Your task to perform on an android device: Open Yahoo.com Image 0: 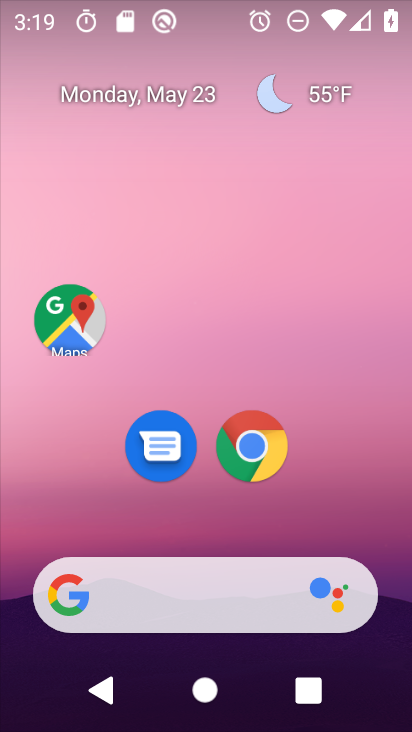
Step 0: click (237, 435)
Your task to perform on an android device: Open Yahoo.com Image 1: 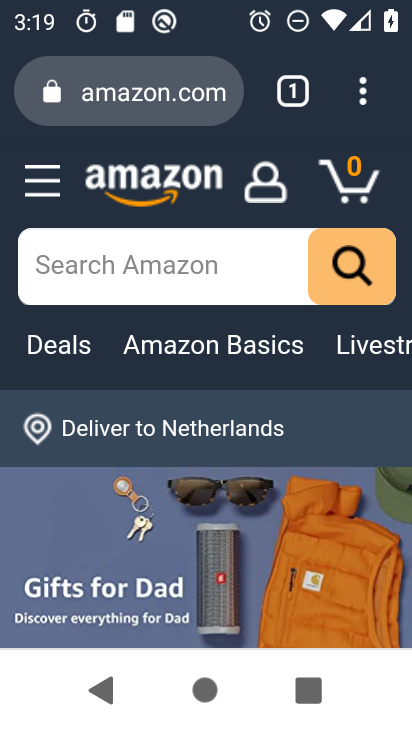
Step 1: click (296, 98)
Your task to perform on an android device: Open Yahoo.com Image 2: 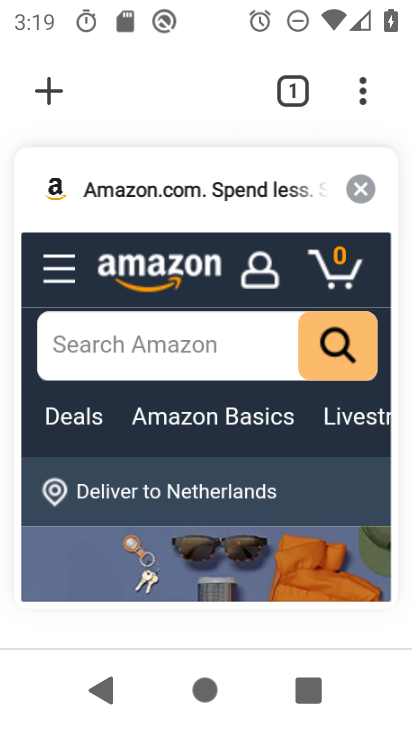
Step 2: click (52, 76)
Your task to perform on an android device: Open Yahoo.com Image 3: 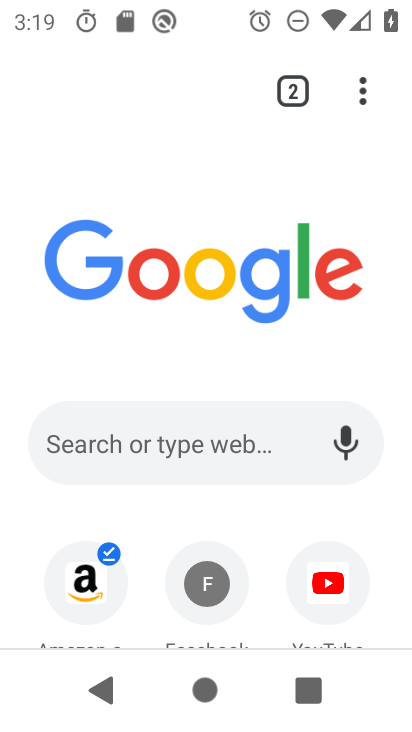
Step 3: drag from (235, 511) to (181, 213)
Your task to perform on an android device: Open Yahoo.com Image 4: 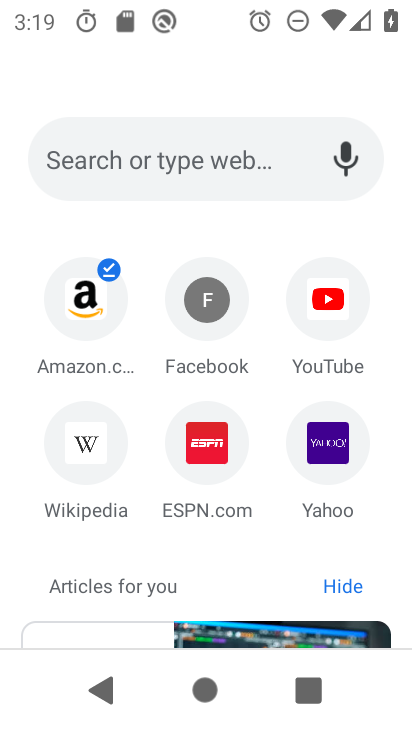
Step 4: click (323, 441)
Your task to perform on an android device: Open Yahoo.com Image 5: 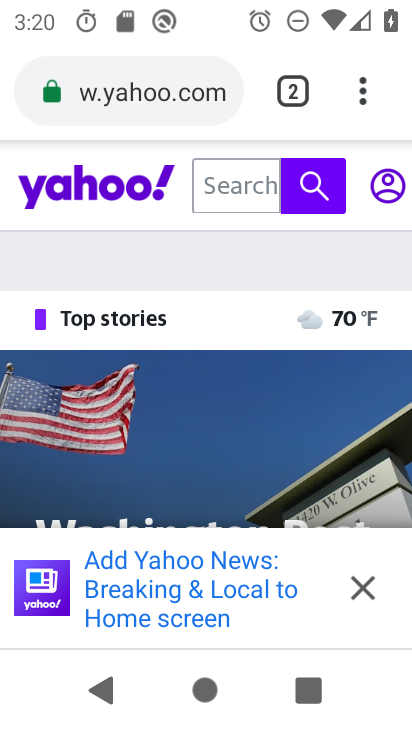
Step 5: task complete